Your task to perform on an android device: Go to display settings Image 0: 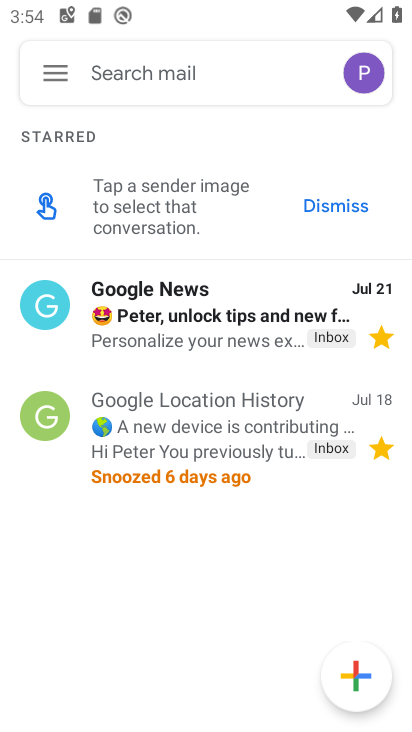
Step 0: press home button
Your task to perform on an android device: Go to display settings Image 1: 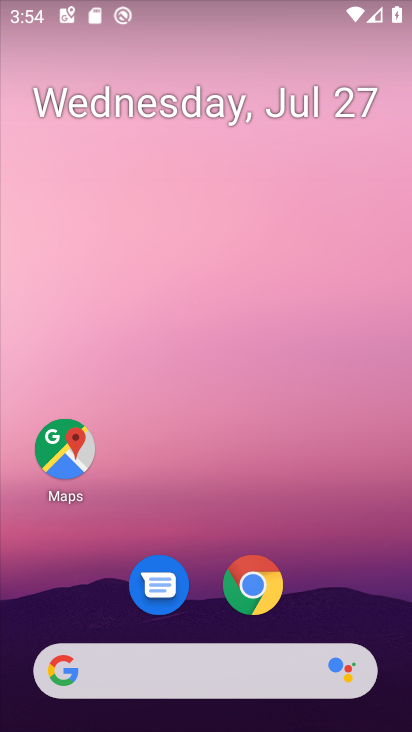
Step 1: drag from (319, 591) to (364, 51)
Your task to perform on an android device: Go to display settings Image 2: 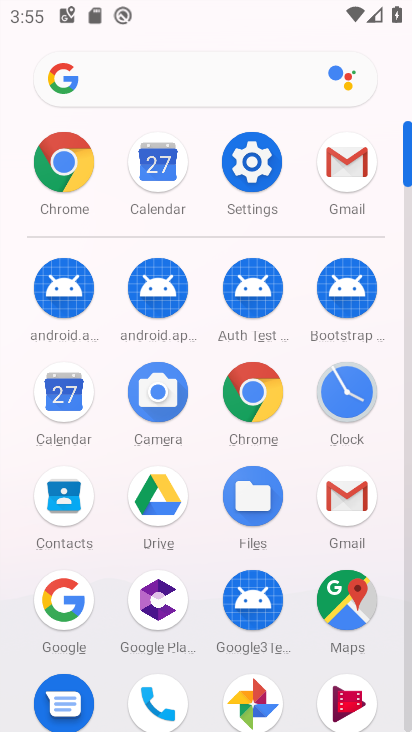
Step 2: click (257, 154)
Your task to perform on an android device: Go to display settings Image 3: 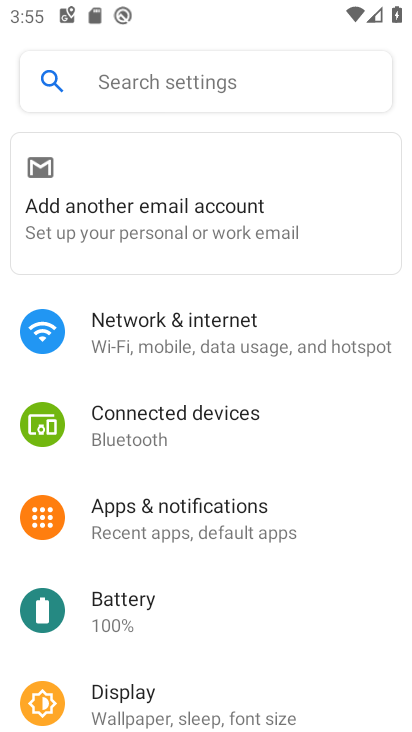
Step 3: drag from (195, 581) to (276, 106)
Your task to perform on an android device: Go to display settings Image 4: 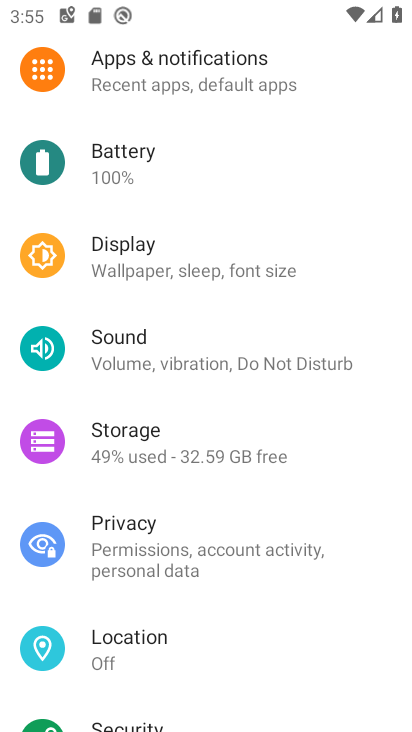
Step 4: click (189, 254)
Your task to perform on an android device: Go to display settings Image 5: 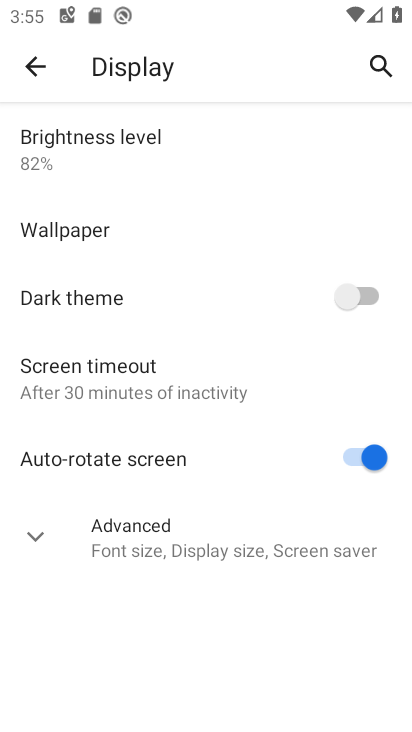
Step 5: click (37, 535)
Your task to perform on an android device: Go to display settings Image 6: 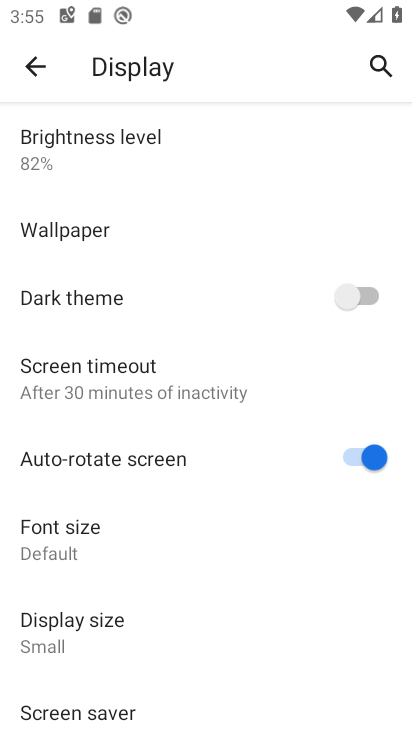
Step 6: task complete